Your task to perform on an android device: clear history in the chrome app Image 0: 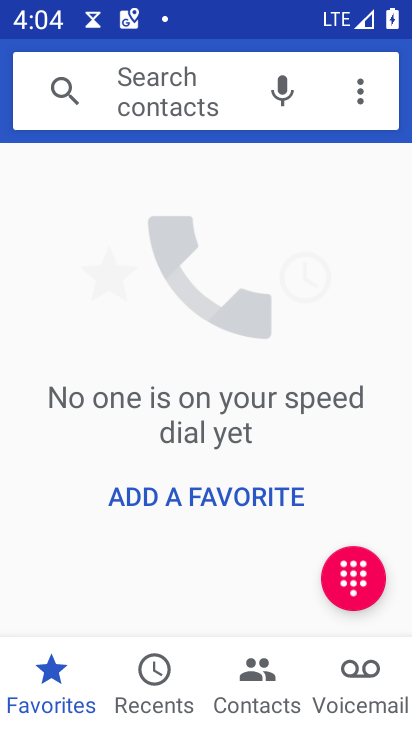
Step 0: press home button
Your task to perform on an android device: clear history in the chrome app Image 1: 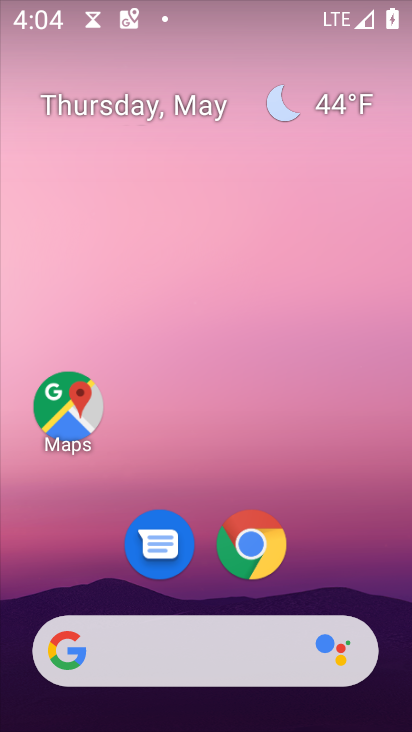
Step 1: click (237, 543)
Your task to perform on an android device: clear history in the chrome app Image 2: 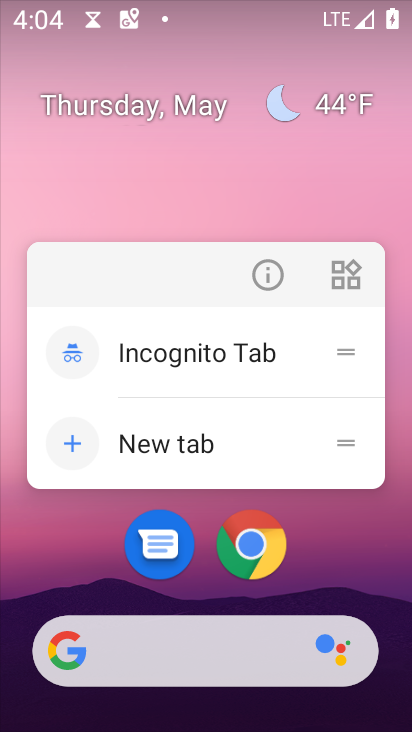
Step 2: click (238, 541)
Your task to perform on an android device: clear history in the chrome app Image 3: 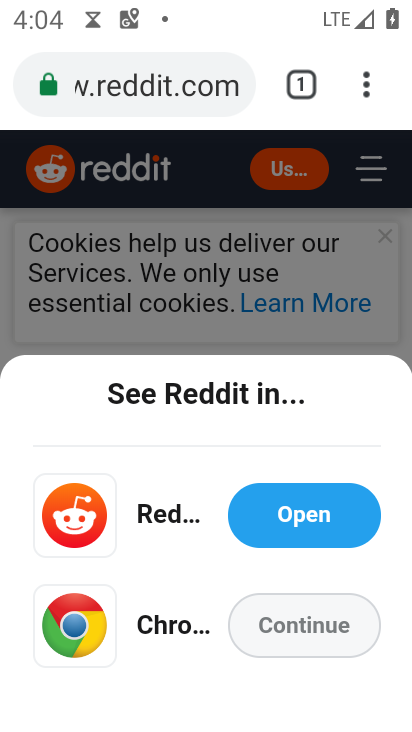
Step 3: click (360, 86)
Your task to perform on an android device: clear history in the chrome app Image 4: 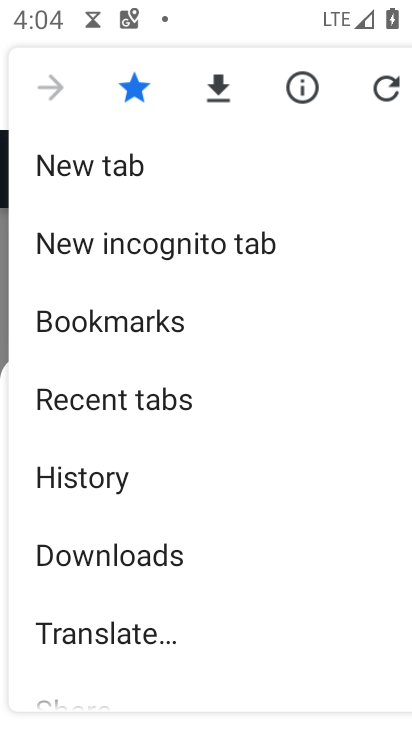
Step 4: click (140, 461)
Your task to perform on an android device: clear history in the chrome app Image 5: 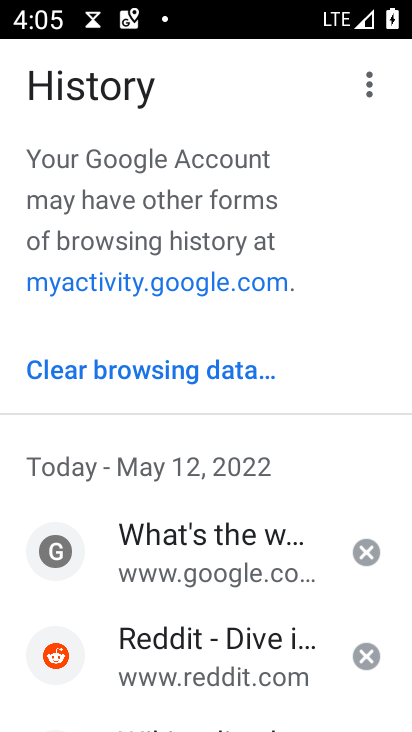
Step 5: click (167, 377)
Your task to perform on an android device: clear history in the chrome app Image 6: 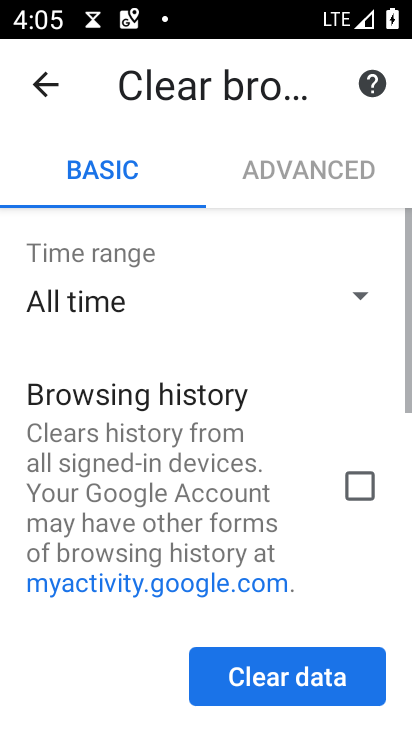
Step 6: click (338, 477)
Your task to perform on an android device: clear history in the chrome app Image 7: 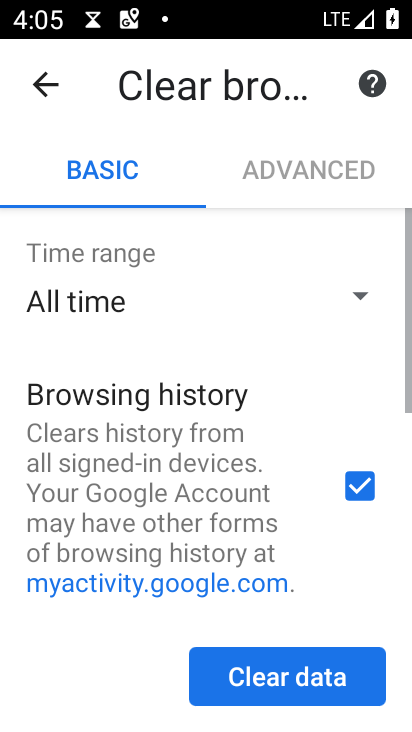
Step 7: drag from (258, 523) to (356, 119)
Your task to perform on an android device: clear history in the chrome app Image 8: 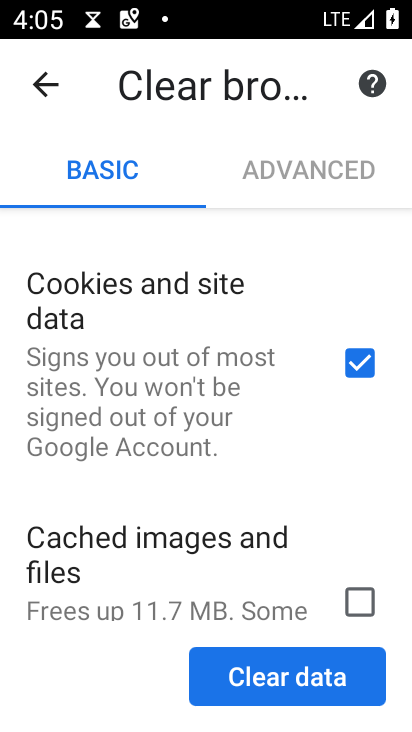
Step 8: click (338, 581)
Your task to perform on an android device: clear history in the chrome app Image 9: 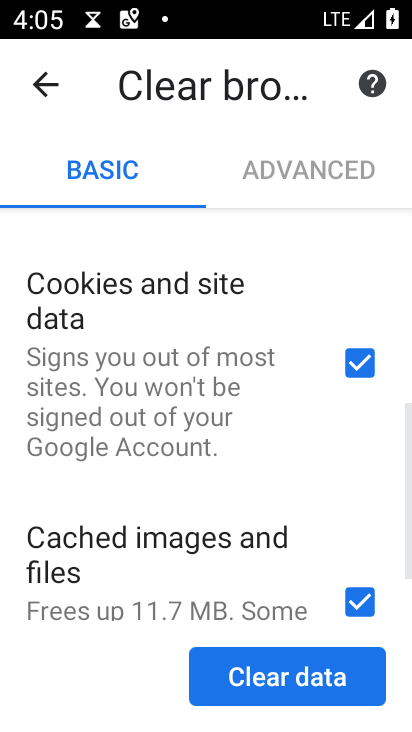
Step 9: click (308, 662)
Your task to perform on an android device: clear history in the chrome app Image 10: 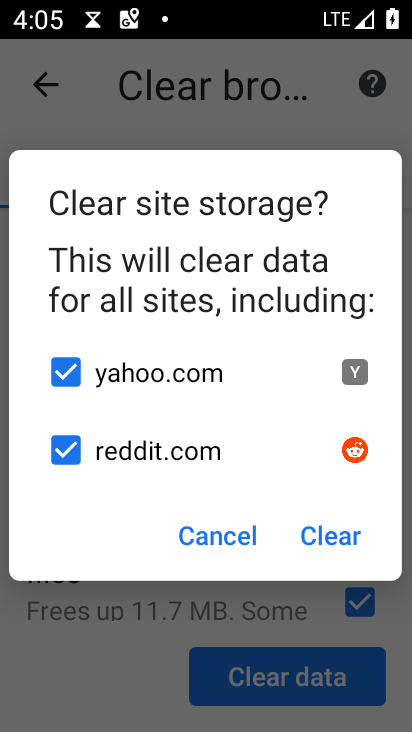
Step 10: click (324, 537)
Your task to perform on an android device: clear history in the chrome app Image 11: 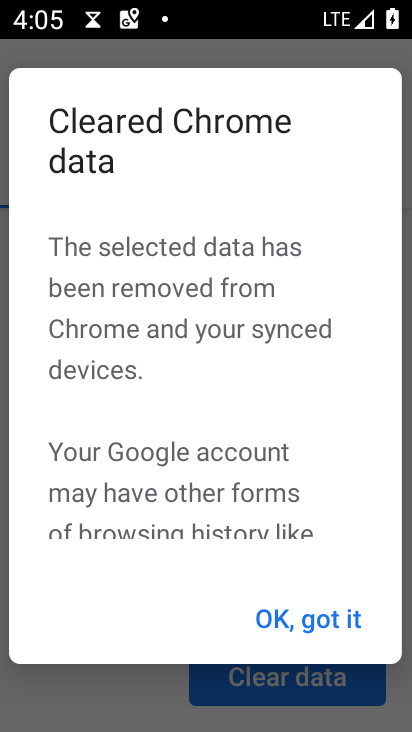
Step 11: click (276, 609)
Your task to perform on an android device: clear history in the chrome app Image 12: 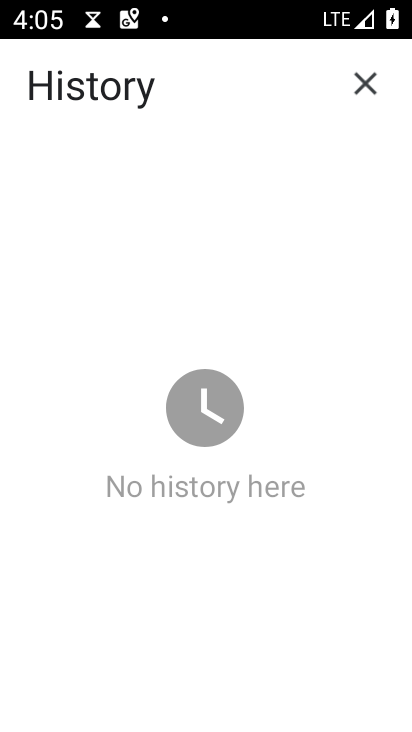
Step 12: task complete